Your task to perform on an android device: add a contact Image 0: 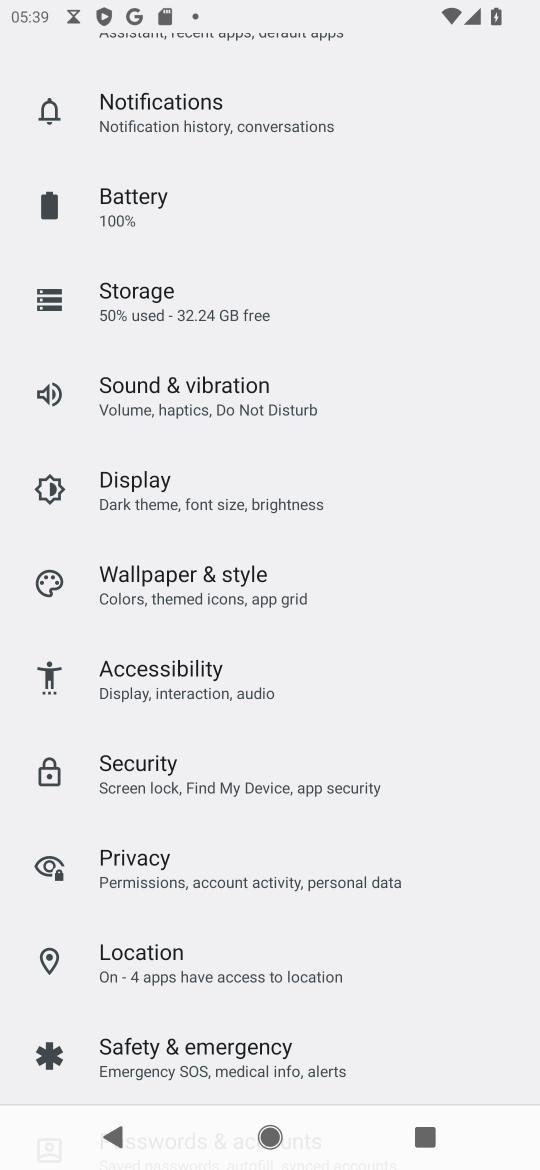
Step 0: press home button
Your task to perform on an android device: add a contact Image 1: 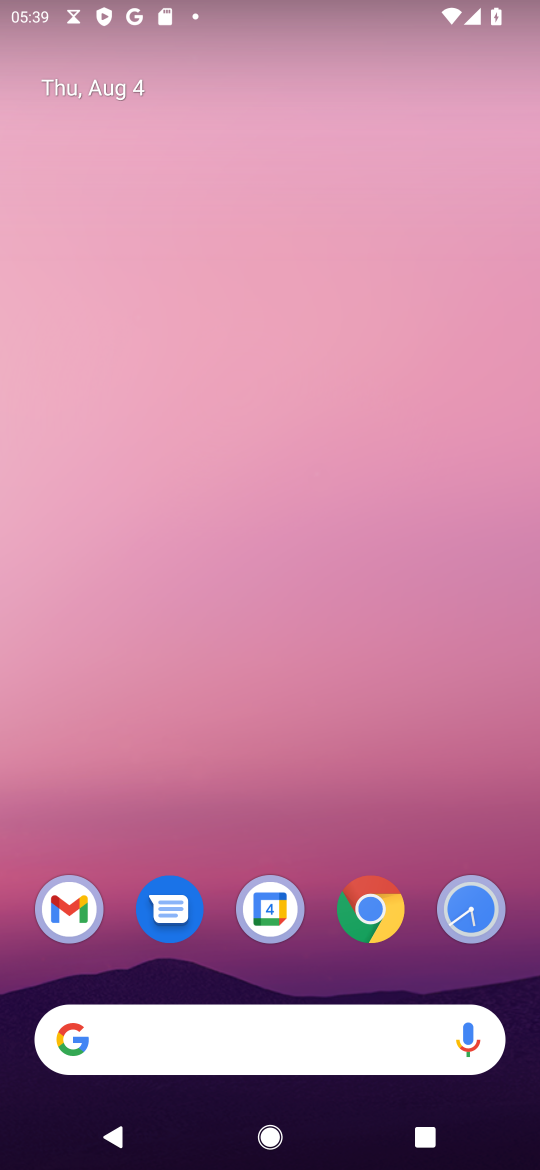
Step 1: drag from (298, 954) to (411, 291)
Your task to perform on an android device: add a contact Image 2: 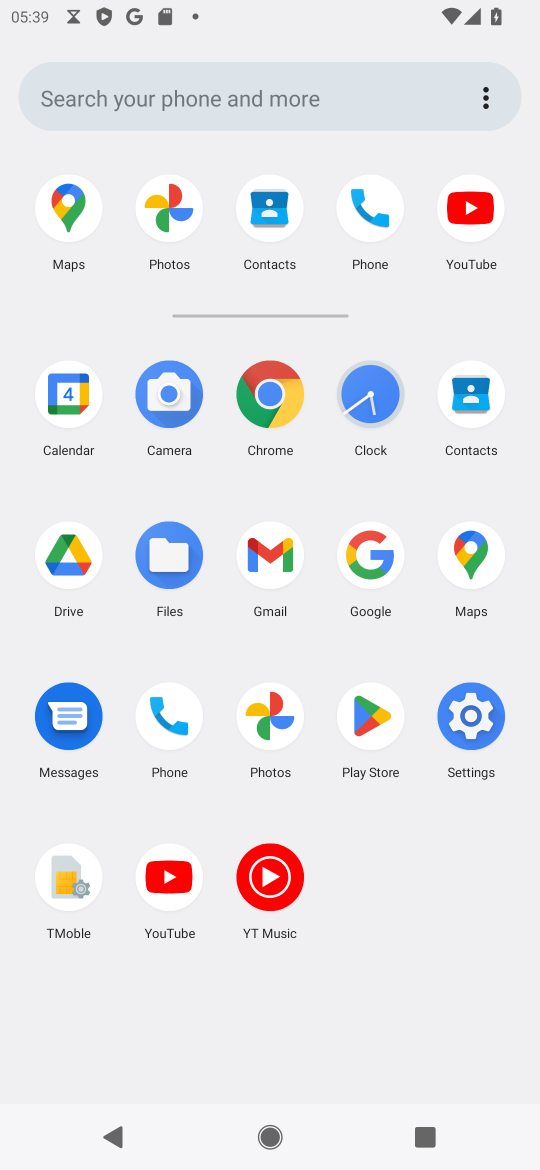
Step 2: click (470, 407)
Your task to perform on an android device: add a contact Image 3: 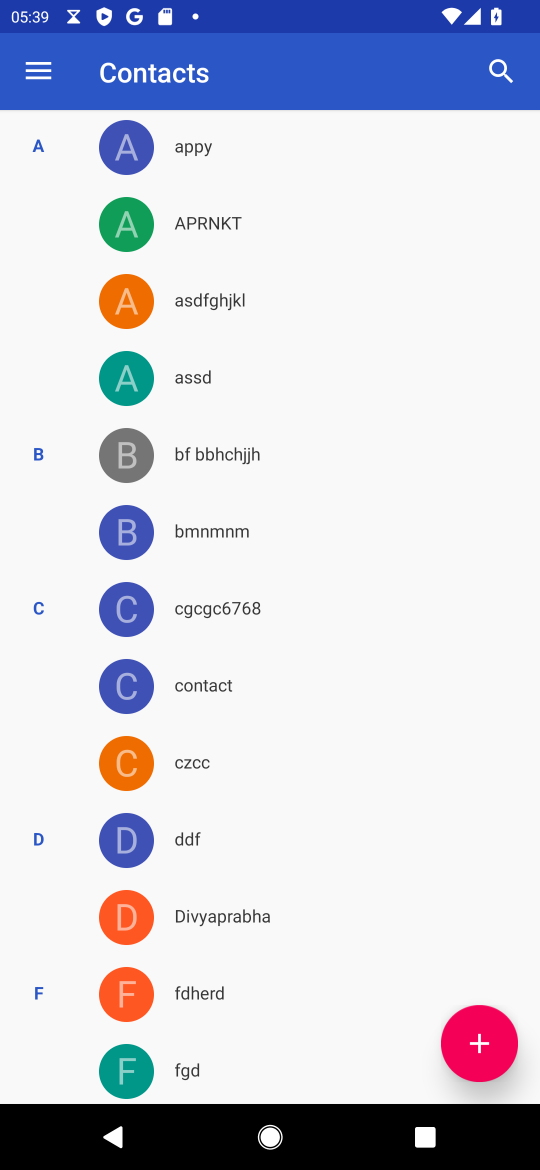
Step 3: click (487, 1054)
Your task to perform on an android device: add a contact Image 4: 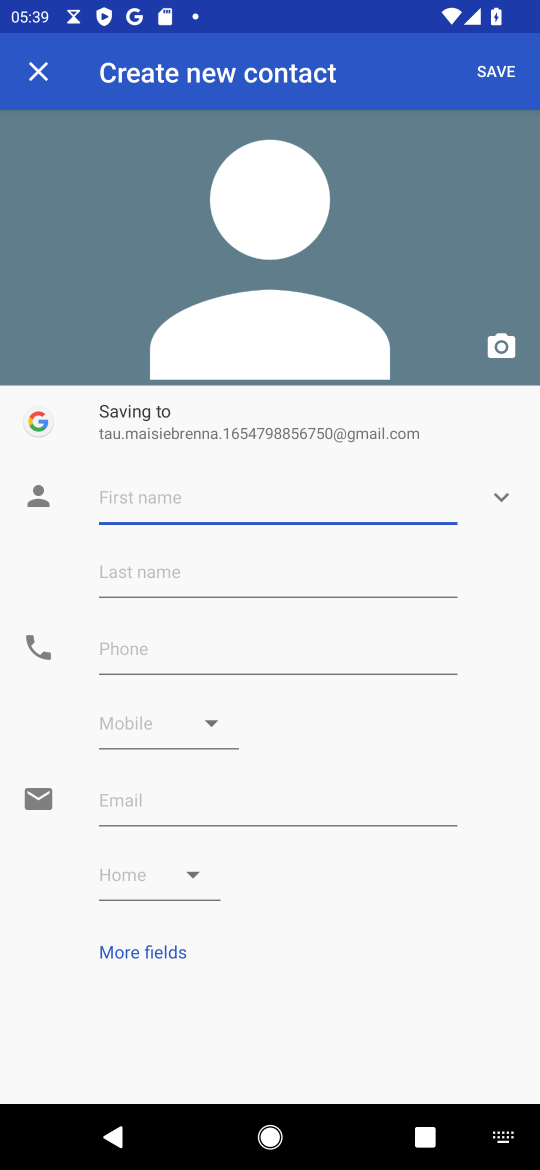
Step 4: click (95, 495)
Your task to perform on an android device: add a contact Image 5: 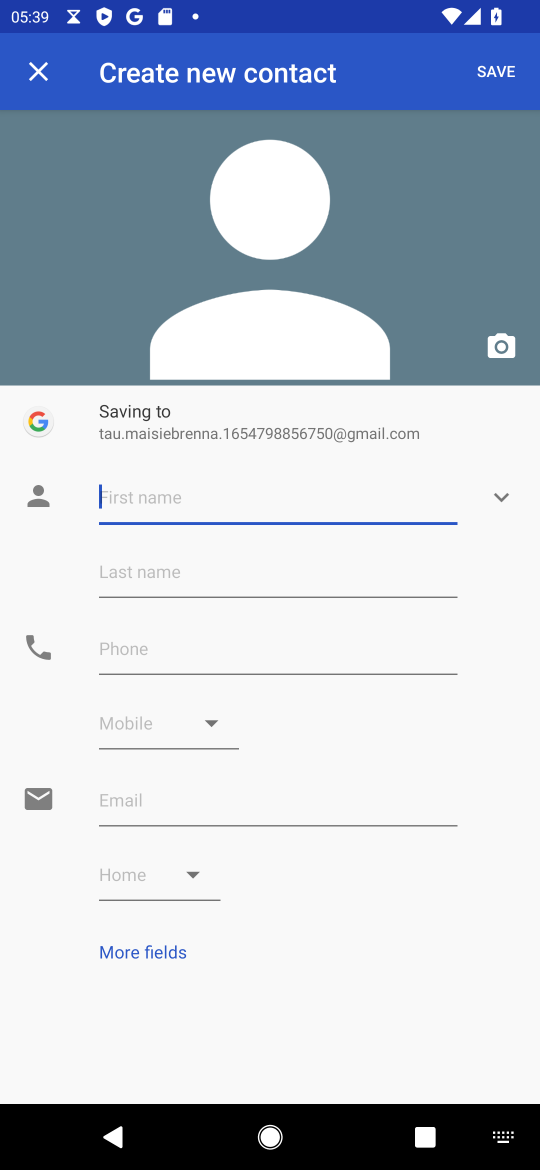
Step 5: type "serfddgh"
Your task to perform on an android device: add a contact Image 6: 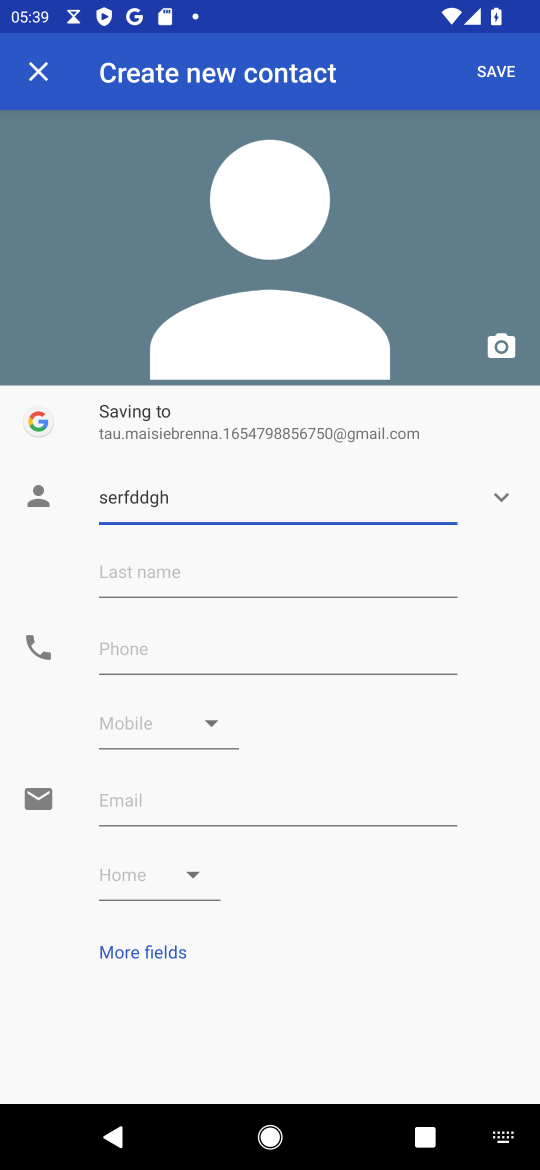
Step 6: click (111, 639)
Your task to perform on an android device: add a contact Image 7: 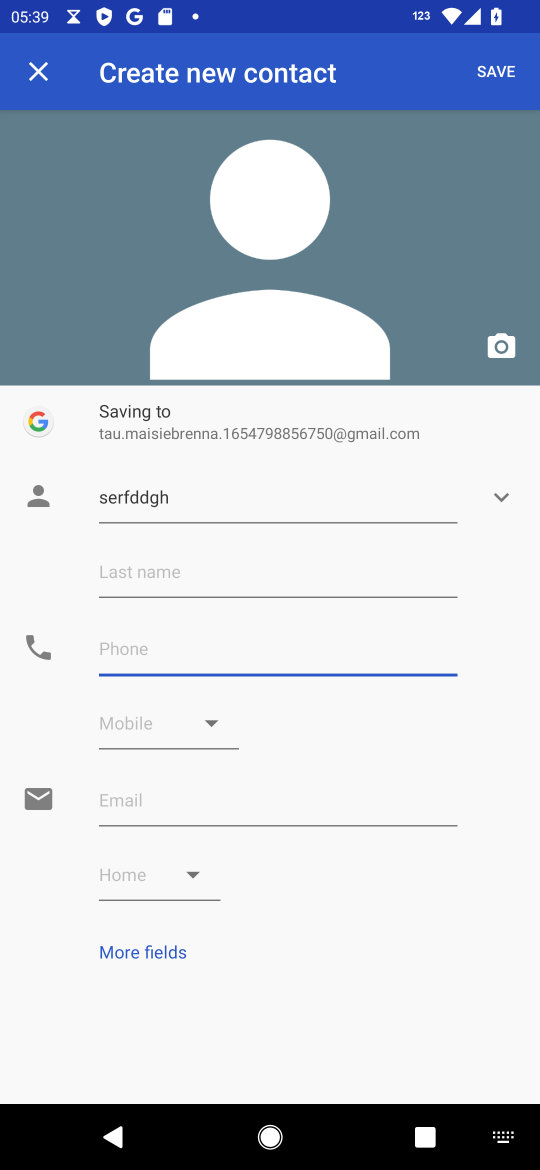
Step 7: type "3547554"
Your task to perform on an android device: add a contact Image 8: 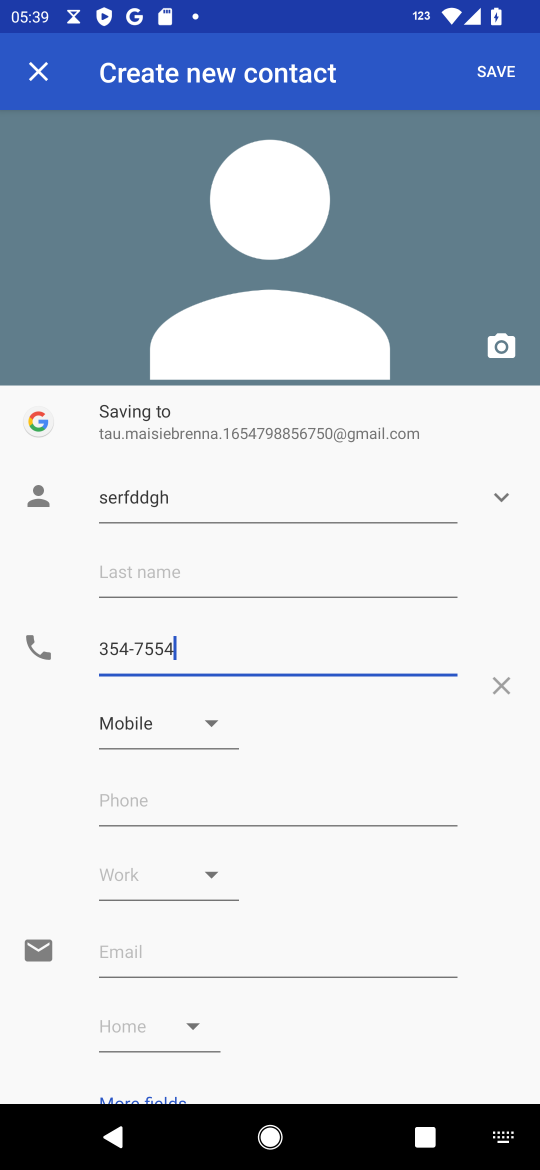
Step 8: click (501, 74)
Your task to perform on an android device: add a contact Image 9: 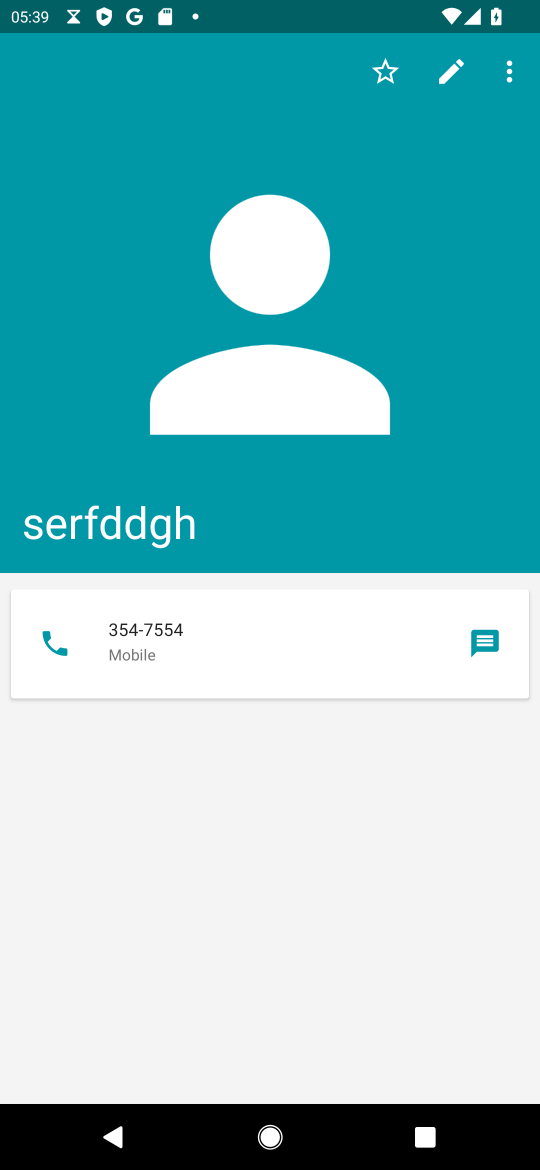
Step 9: task complete